Your task to perform on an android device: change alarm snooze length Image 0: 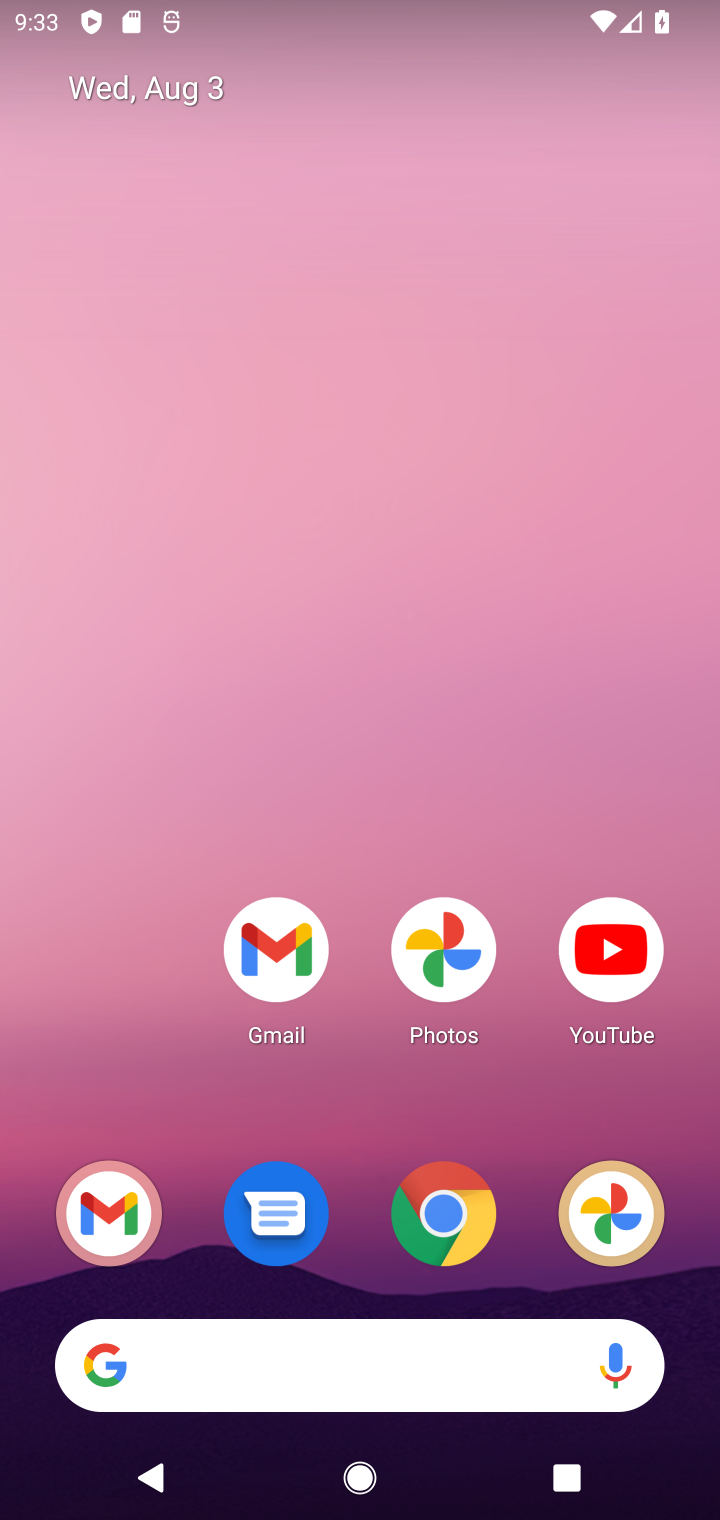
Step 0: drag from (501, 1127) to (419, 0)
Your task to perform on an android device: change alarm snooze length Image 1: 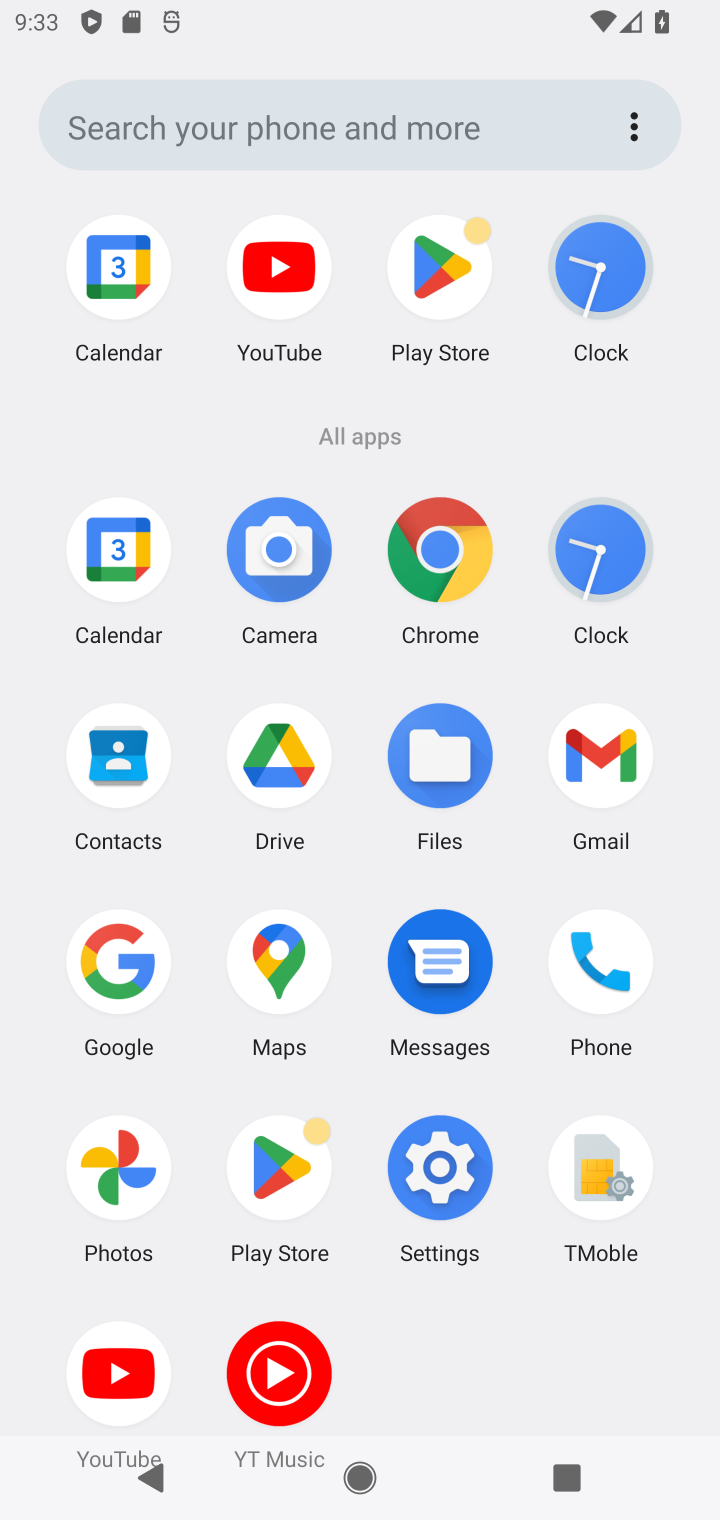
Step 1: click (618, 235)
Your task to perform on an android device: change alarm snooze length Image 2: 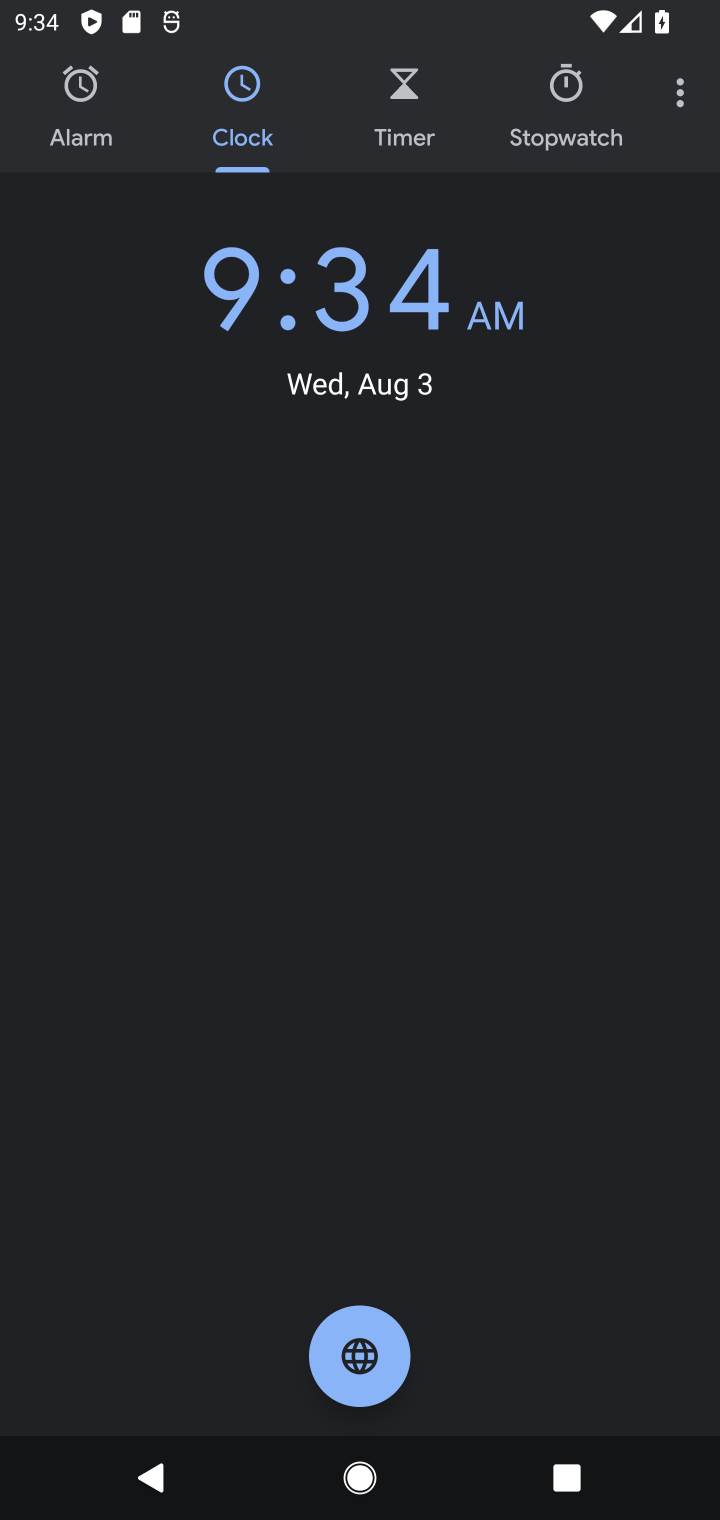
Step 2: click (675, 104)
Your task to perform on an android device: change alarm snooze length Image 3: 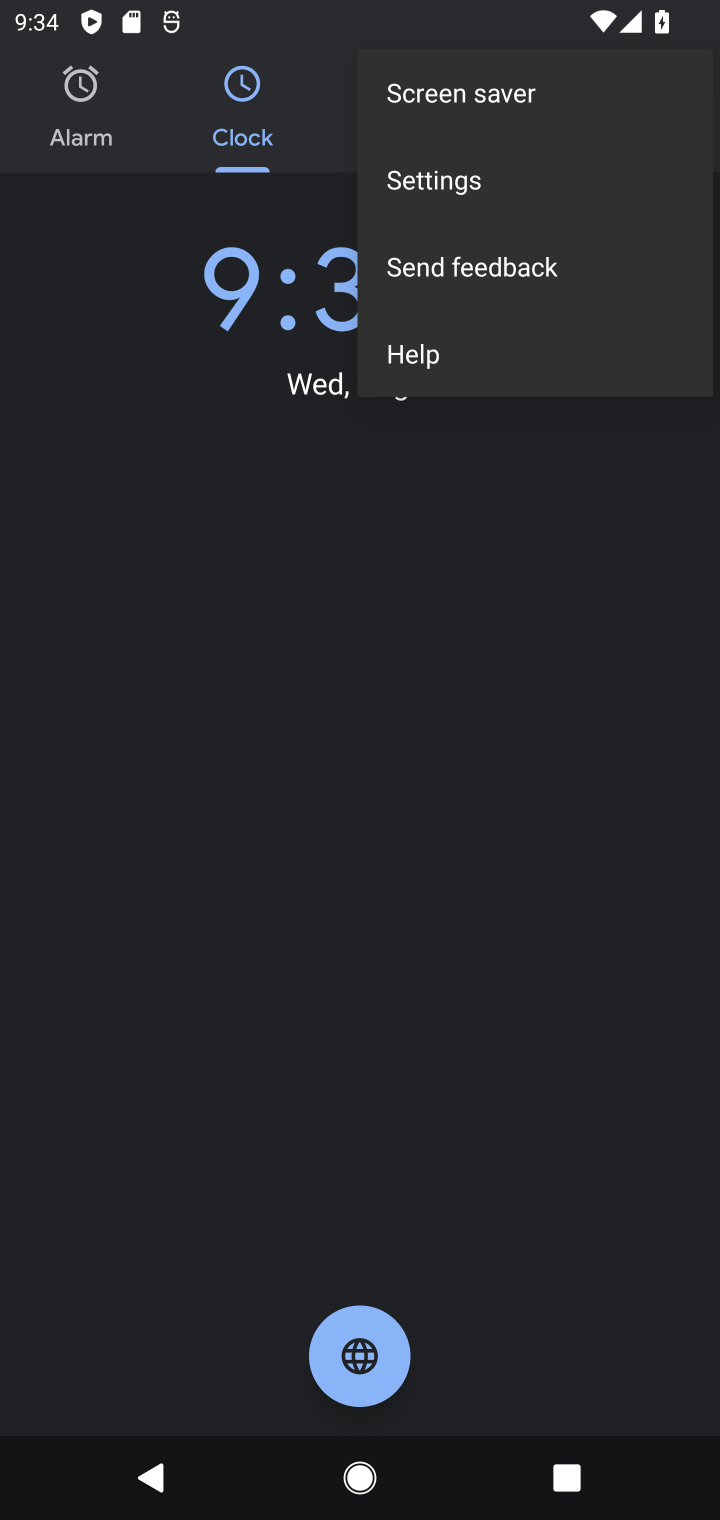
Step 3: click (426, 182)
Your task to perform on an android device: change alarm snooze length Image 4: 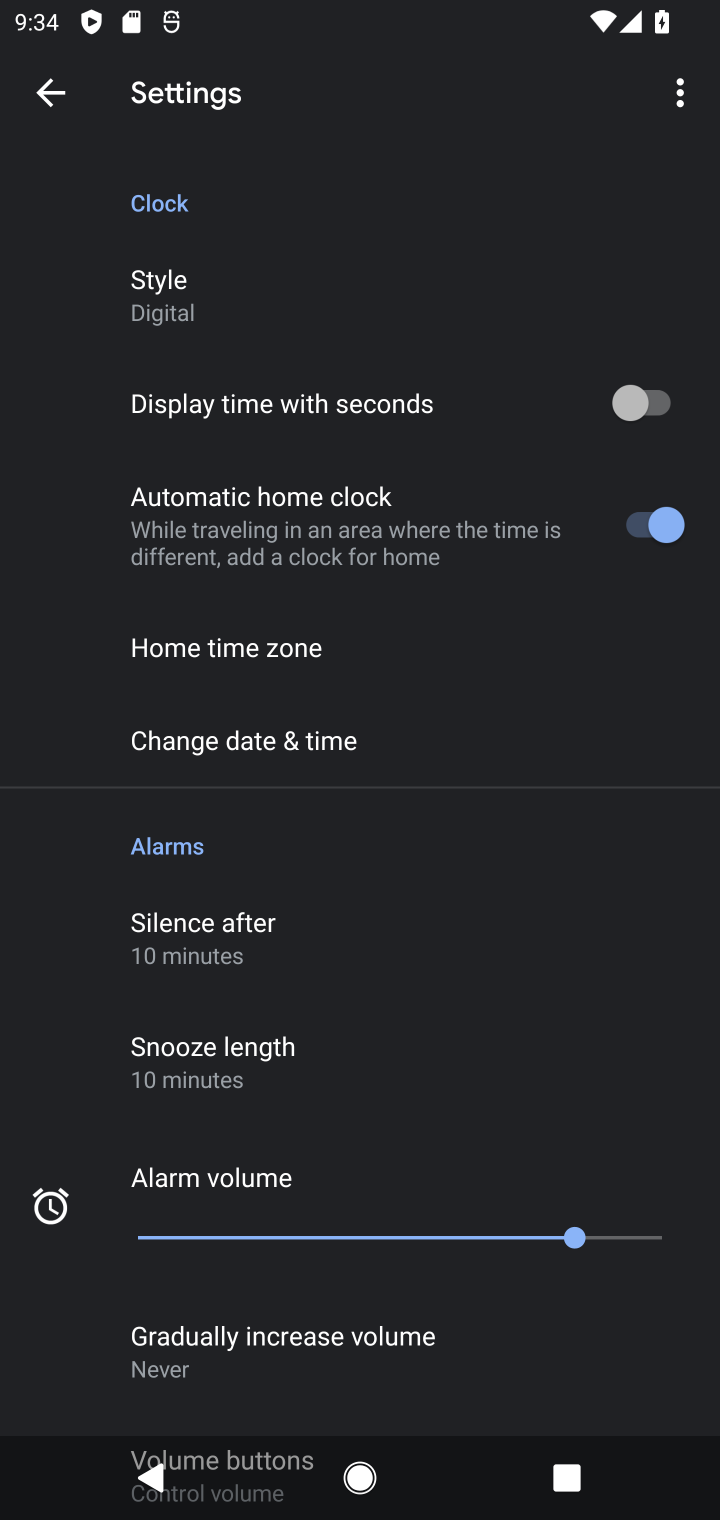
Step 4: click (354, 1054)
Your task to perform on an android device: change alarm snooze length Image 5: 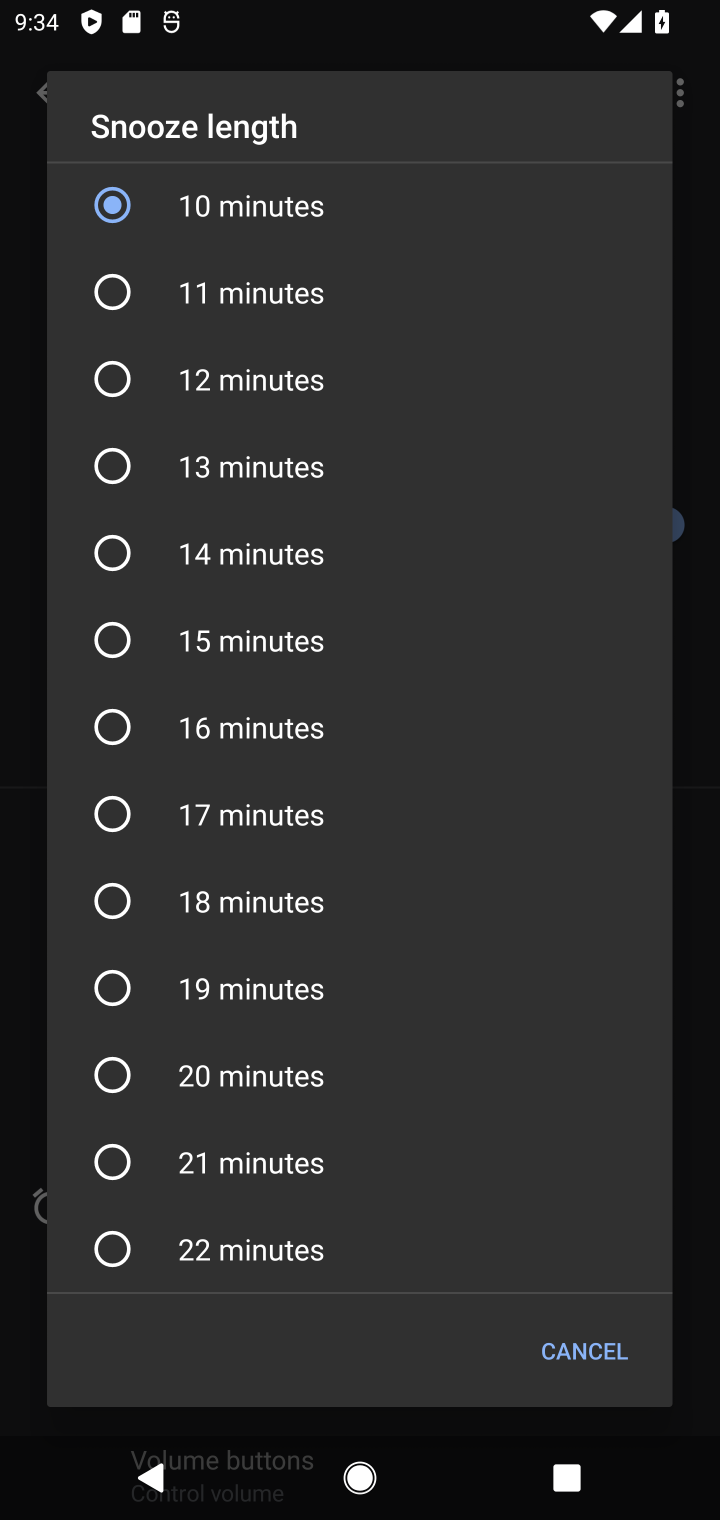
Step 5: click (208, 640)
Your task to perform on an android device: change alarm snooze length Image 6: 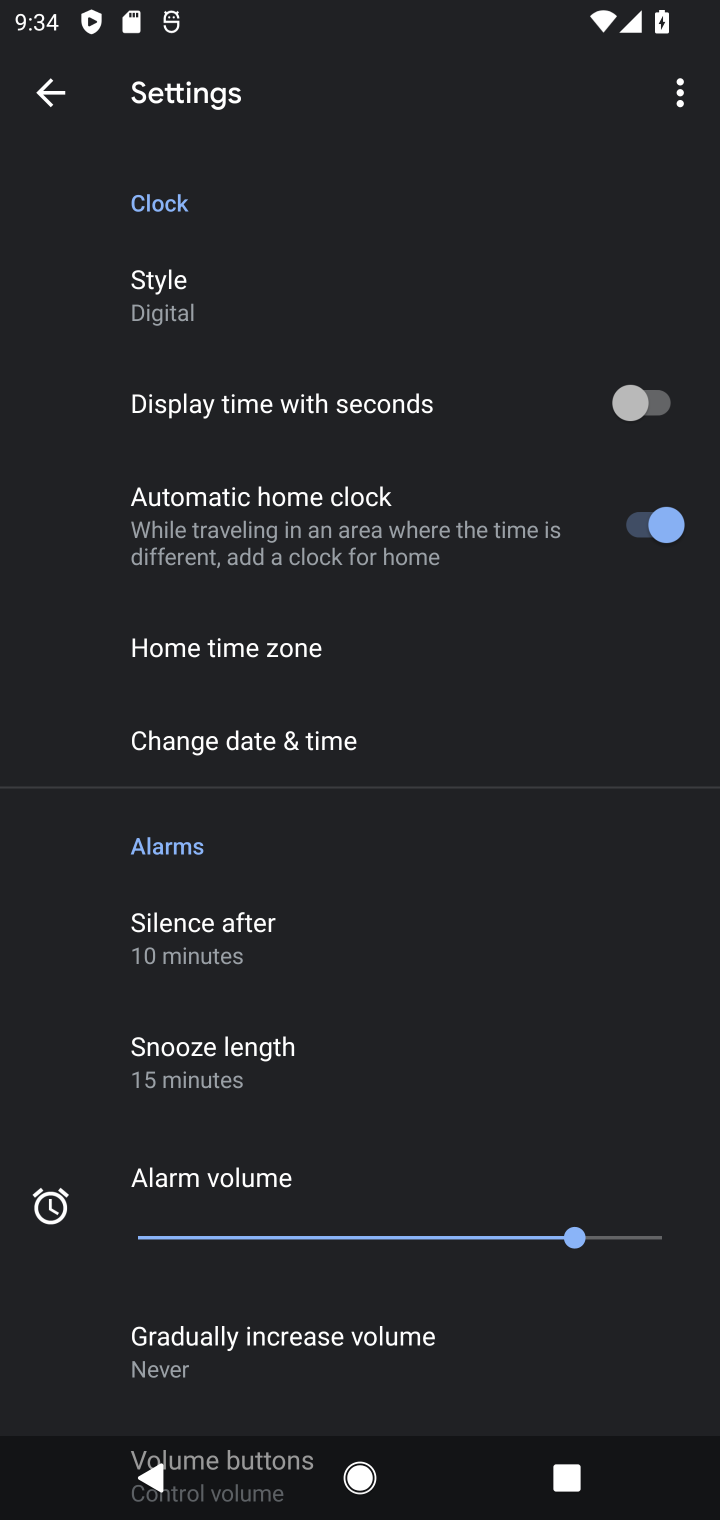
Step 6: task complete